Your task to perform on an android device: Open calendar and show me the second week of next month Image 0: 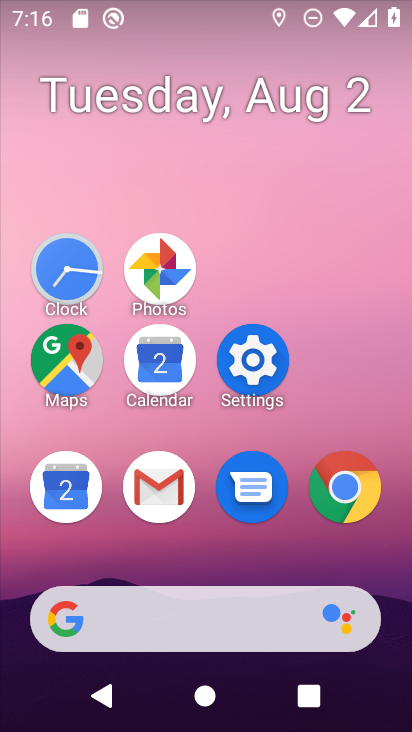
Step 0: click (226, 27)
Your task to perform on an android device: Open calendar and show me the second week of next month Image 1: 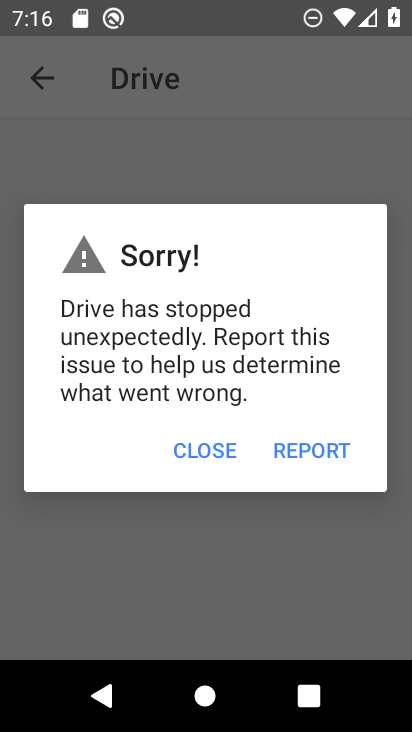
Step 1: press home button
Your task to perform on an android device: Open calendar and show me the second week of next month Image 2: 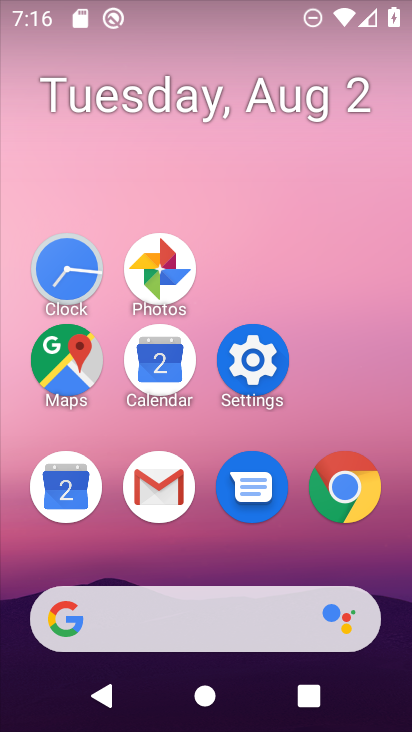
Step 2: click (165, 375)
Your task to perform on an android device: Open calendar and show me the second week of next month Image 3: 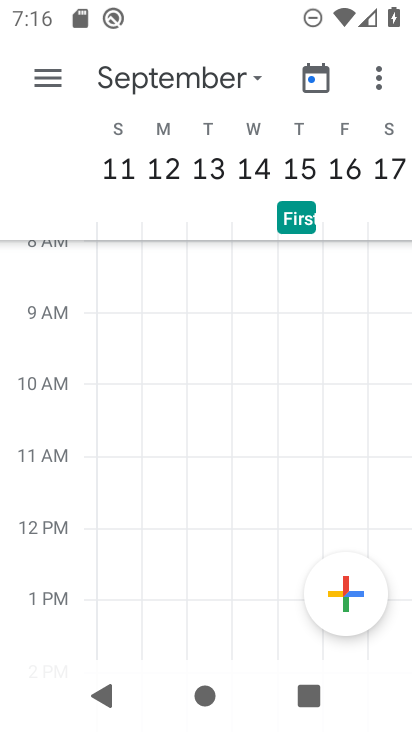
Step 3: click (267, 79)
Your task to perform on an android device: Open calendar and show me the second week of next month Image 4: 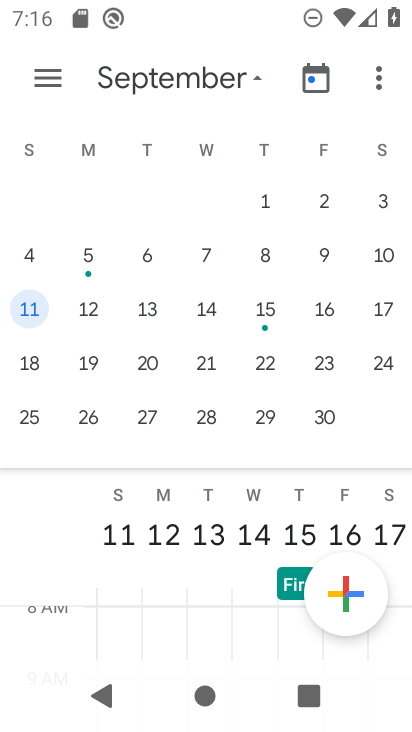
Step 4: click (147, 257)
Your task to perform on an android device: Open calendar and show me the second week of next month Image 5: 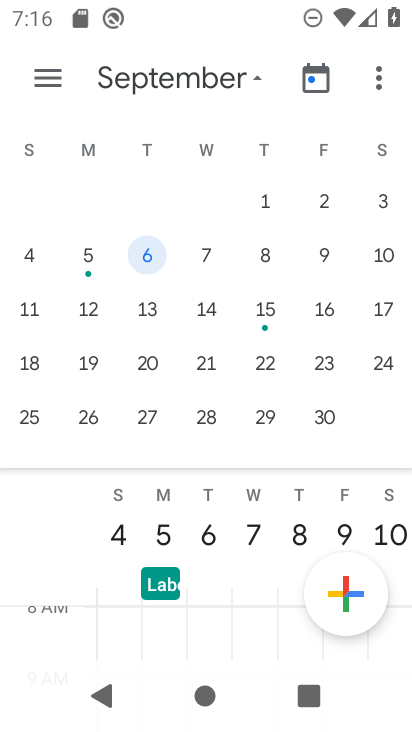
Step 5: task complete